Your task to perform on an android device: Open the calendar app, open the side menu, and click the "Day" option Image 0: 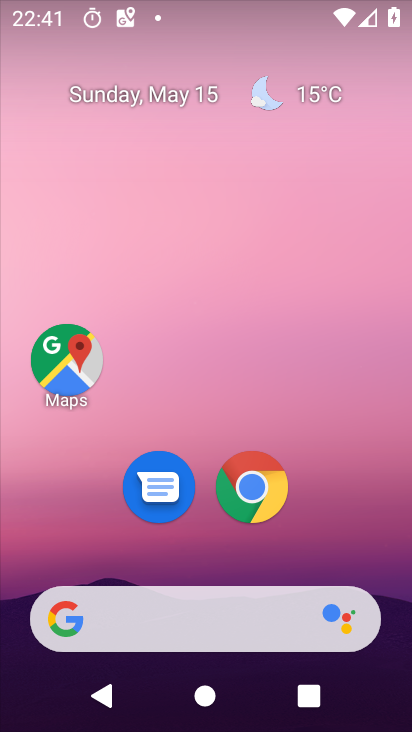
Step 0: drag from (273, 606) to (396, 91)
Your task to perform on an android device: Open the calendar app, open the side menu, and click the "Day" option Image 1: 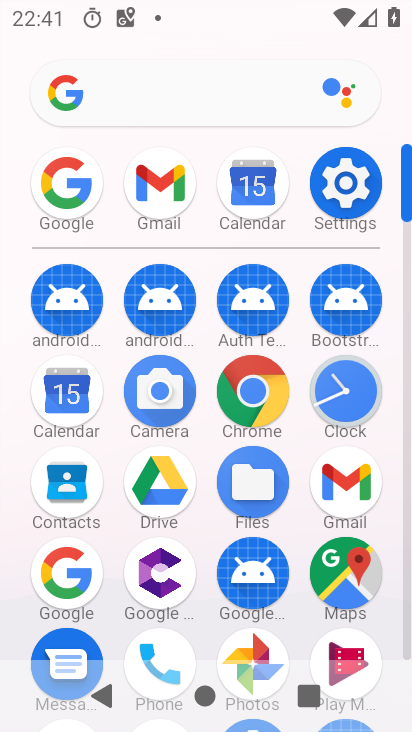
Step 1: click (67, 398)
Your task to perform on an android device: Open the calendar app, open the side menu, and click the "Day" option Image 2: 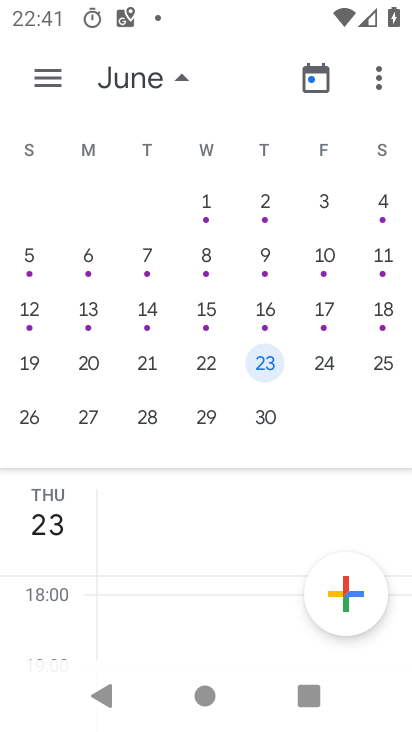
Step 2: click (39, 78)
Your task to perform on an android device: Open the calendar app, open the side menu, and click the "Day" option Image 3: 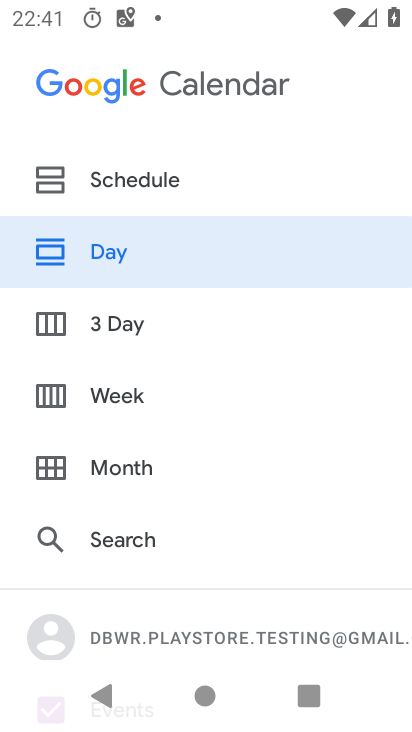
Step 3: click (68, 252)
Your task to perform on an android device: Open the calendar app, open the side menu, and click the "Day" option Image 4: 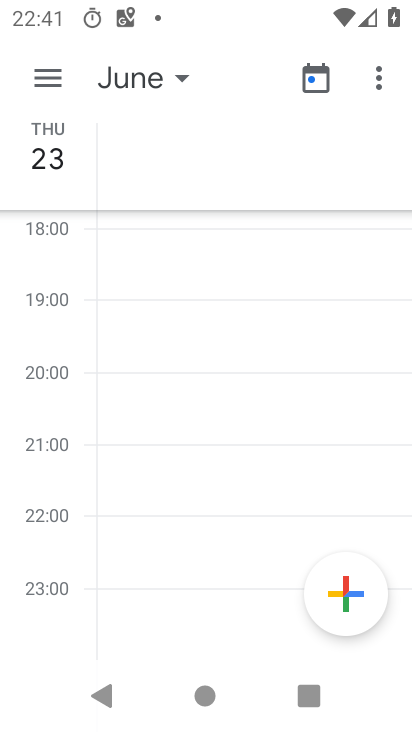
Step 4: task complete